Your task to perform on an android device: install app "TextNow: Call + Text Unlimited" Image 0: 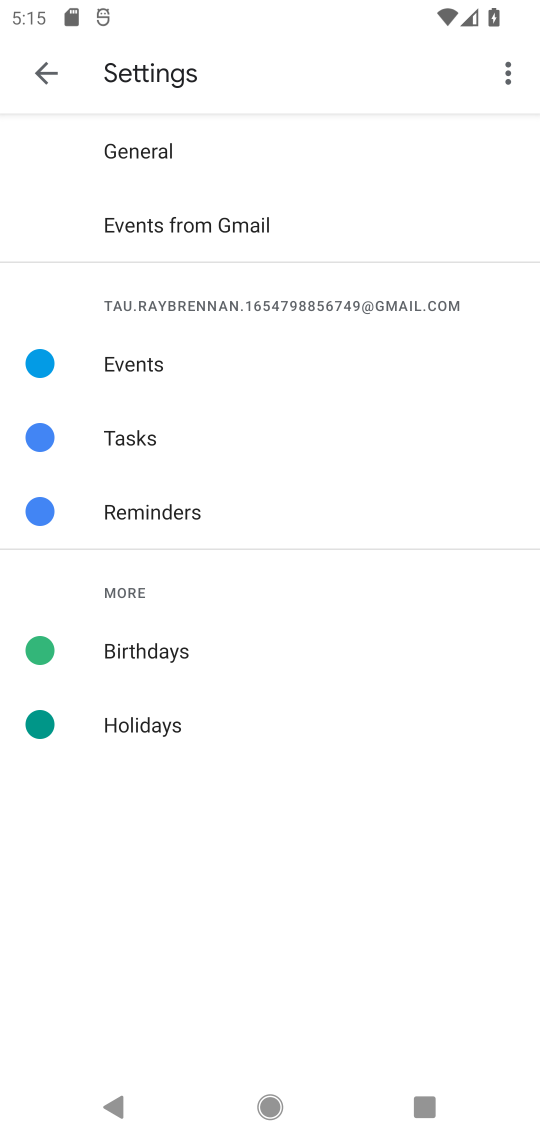
Step 0: press home button
Your task to perform on an android device: install app "TextNow: Call + Text Unlimited" Image 1: 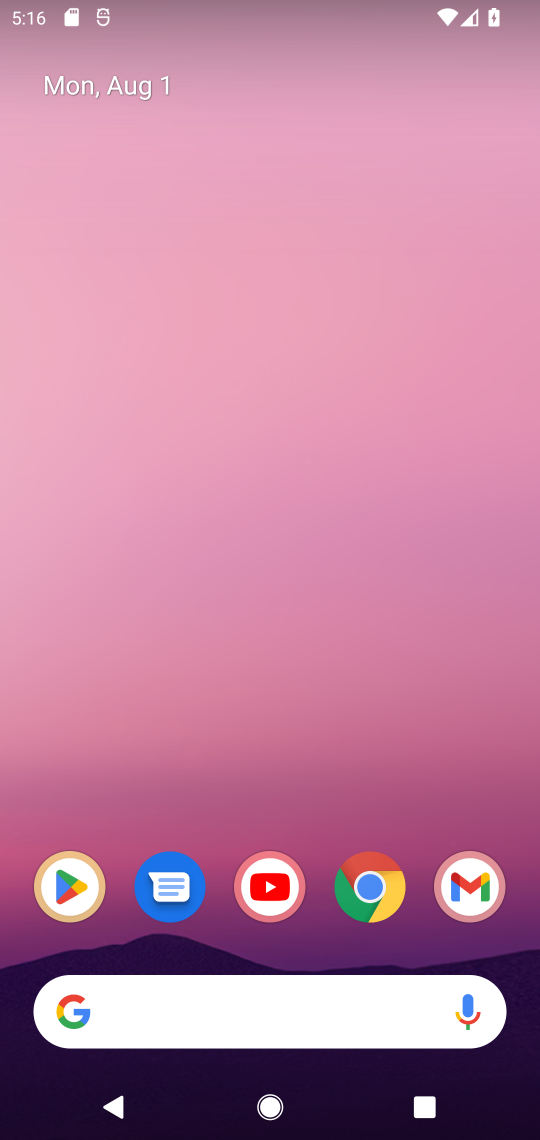
Step 1: click (71, 898)
Your task to perform on an android device: install app "TextNow: Call + Text Unlimited" Image 2: 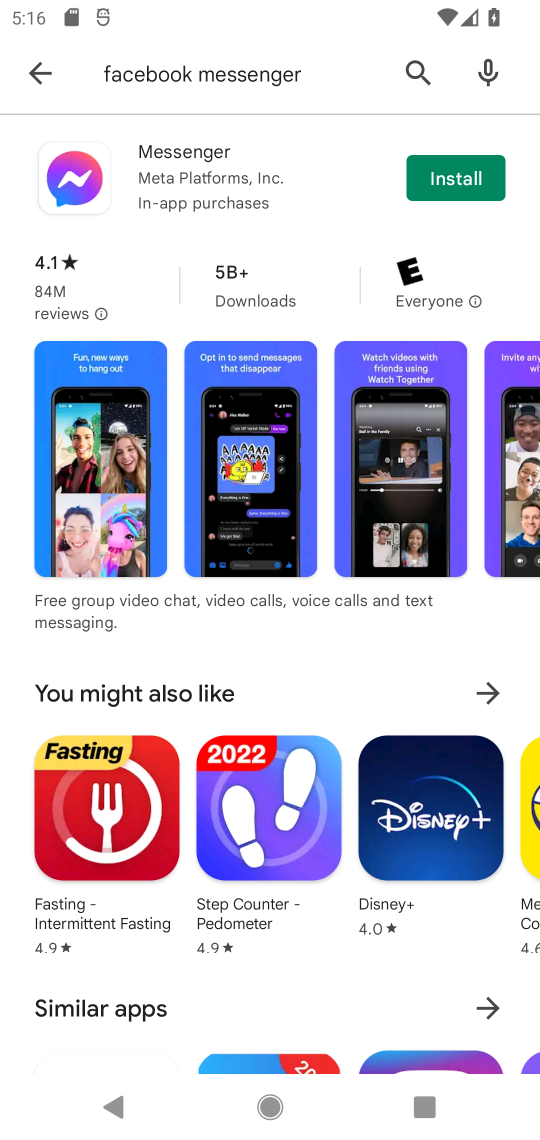
Step 2: click (35, 76)
Your task to perform on an android device: install app "TextNow: Call + Text Unlimited" Image 3: 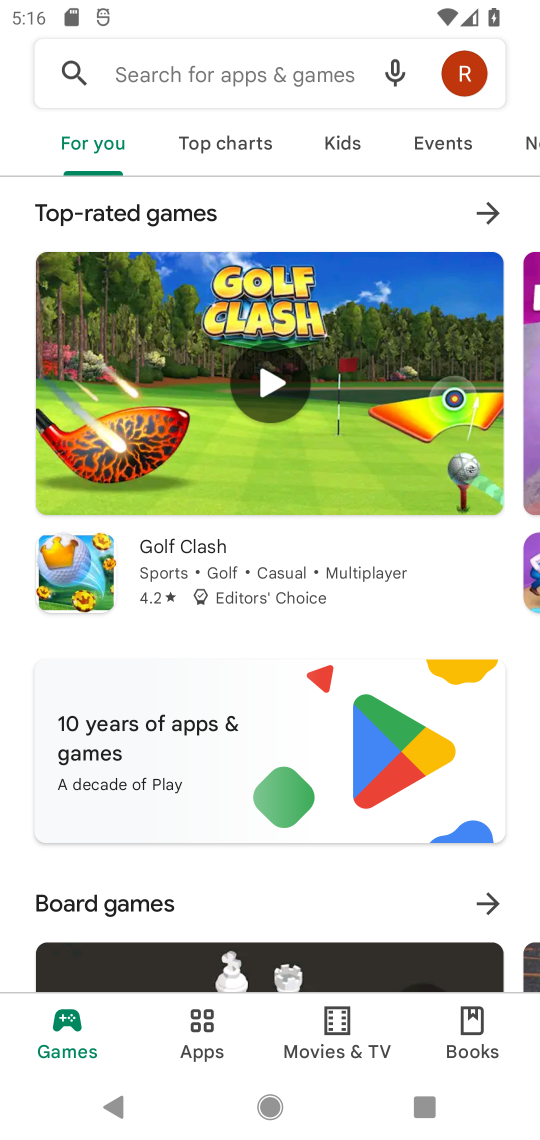
Step 3: click (253, 61)
Your task to perform on an android device: install app "TextNow: Call + Text Unlimited" Image 4: 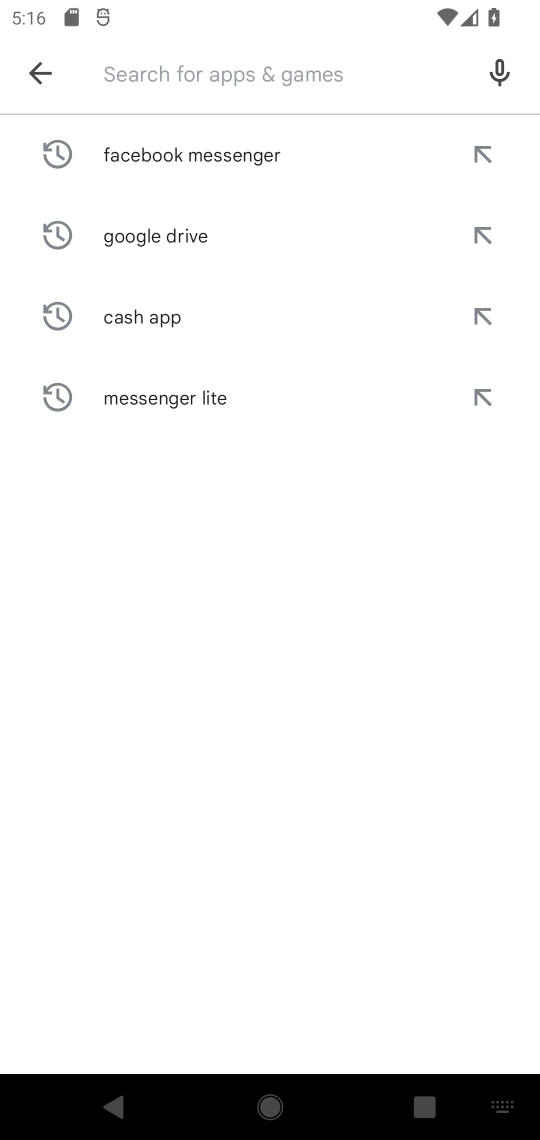
Step 4: type "TextNow: Call + Text Unlimited"
Your task to perform on an android device: install app "TextNow: Call + Text Unlimited" Image 5: 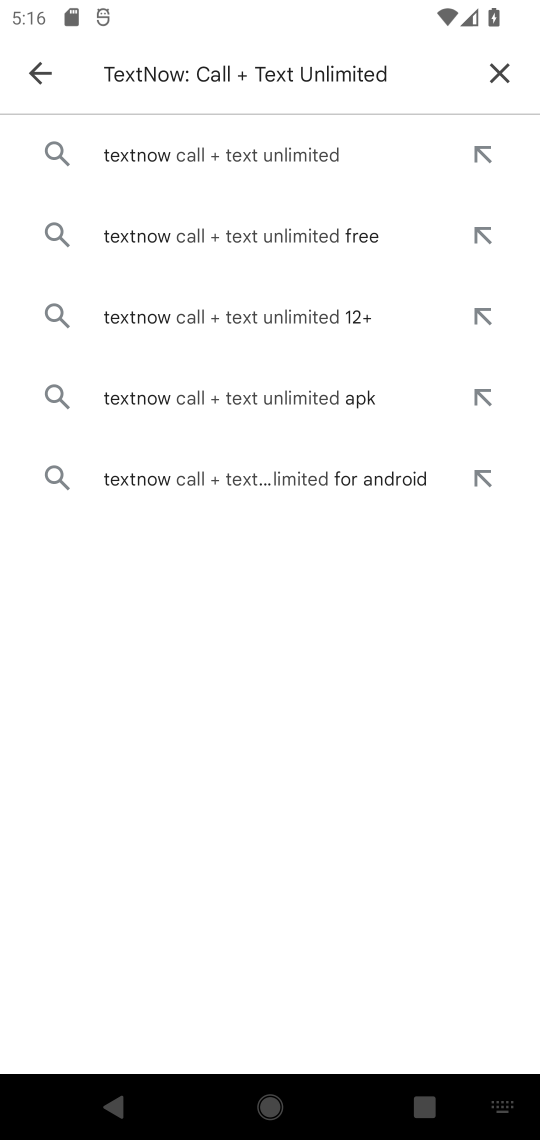
Step 5: click (212, 162)
Your task to perform on an android device: install app "TextNow: Call + Text Unlimited" Image 6: 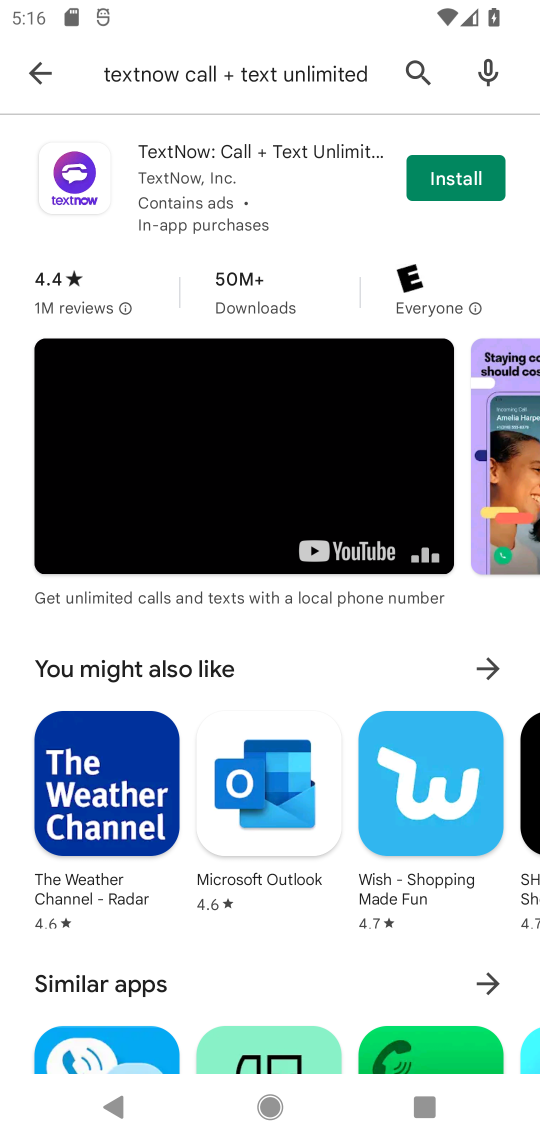
Step 6: click (443, 183)
Your task to perform on an android device: install app "TextNow: Call + Text Unlimited" Image 7: 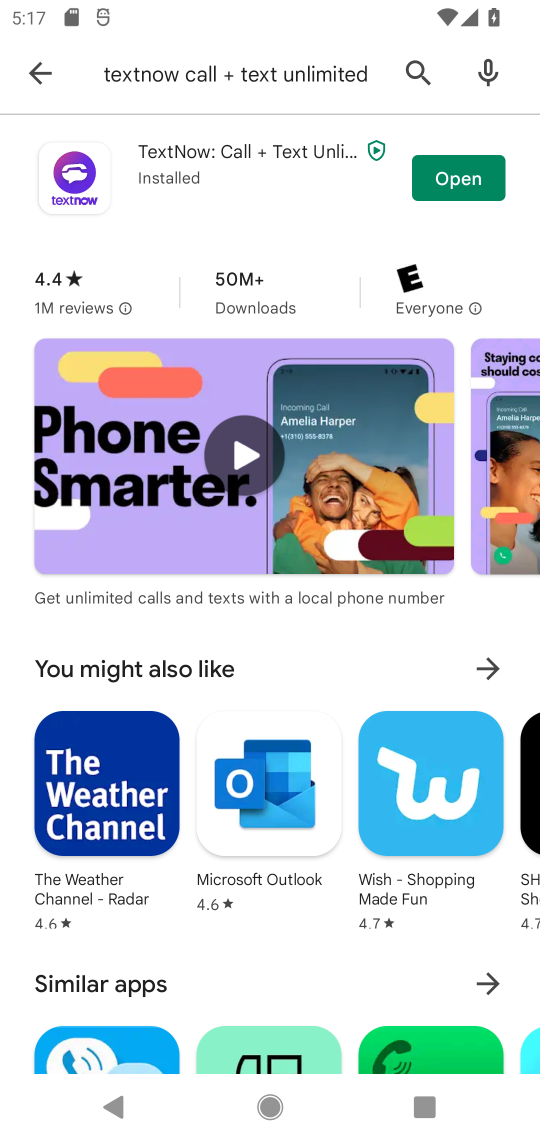
Step 7: task complete